Your task to perform on an android device: Open the web browser Image 0: 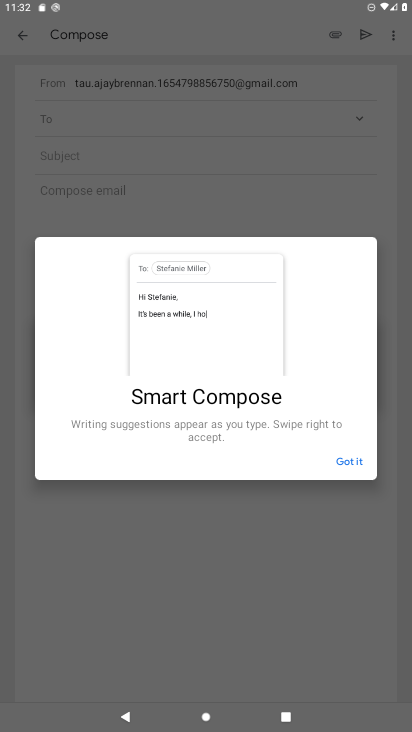
Step 0: press home button
Your task to perform on an android device: Open the web browser Image 1: 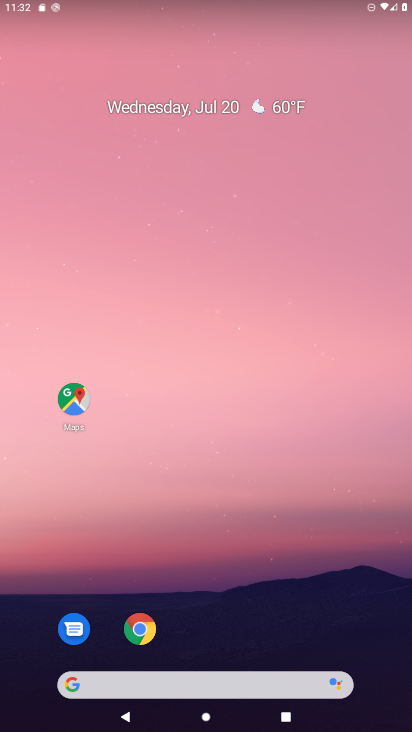
Step 1: click (156, 626)
Your task to perform on an android device: Open the web browser Image 2: 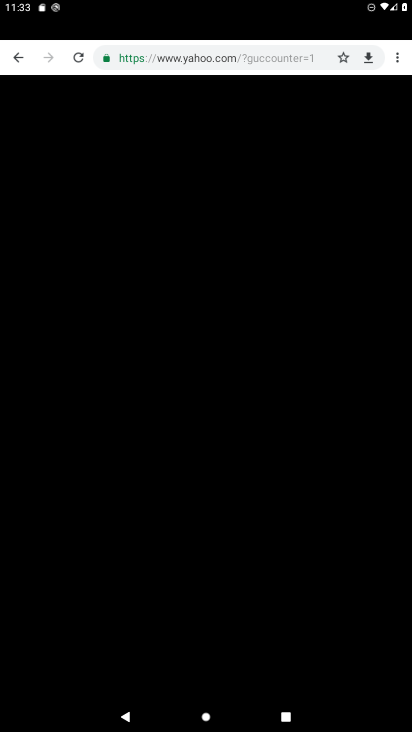
Step 2: task complete